Your task to perform on an android device: toggle sleep mode Image 0: 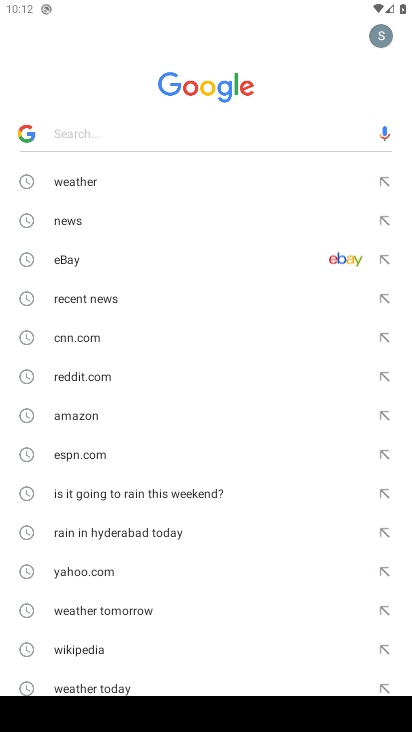
Step 0: press home button
Your task to perform on an android device: toggle sleep mode Image 1: 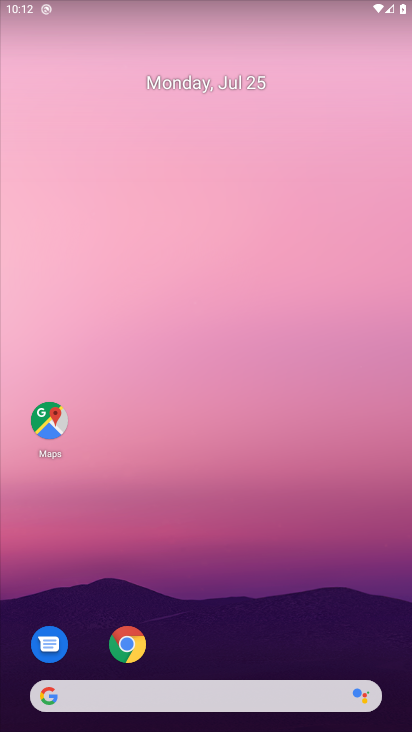
Step 1: drag from (319, 622) to (301, 84)
Your task to perform on an android device: toggle sleep mode Image 2: 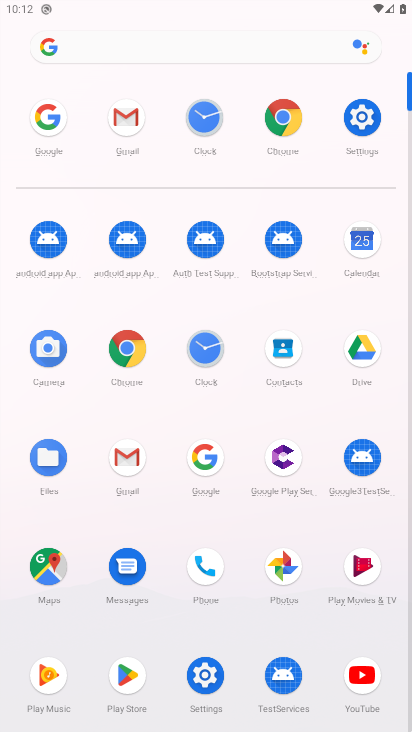
Step 2: click (206, 673)
Your task to perform on an android device: toggle sleep mode Image 3: 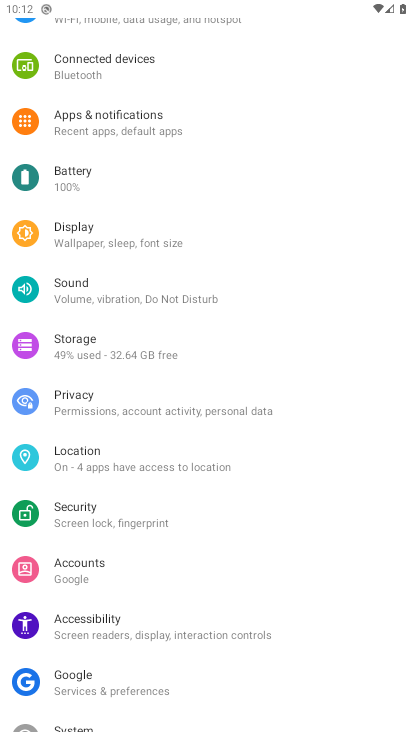
Step 3: click (99, 242)
Your task to perform on an android device: toggle sleep mode Image 4: 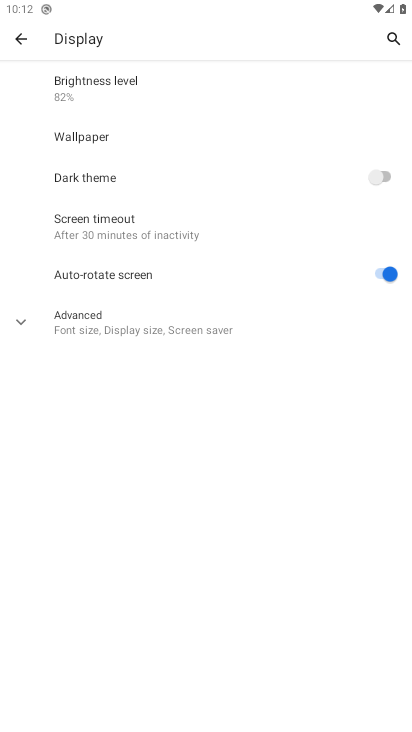
Step 4: click (111, 221)
Your task to perform on an android device: toggle sleep mode Image 5: 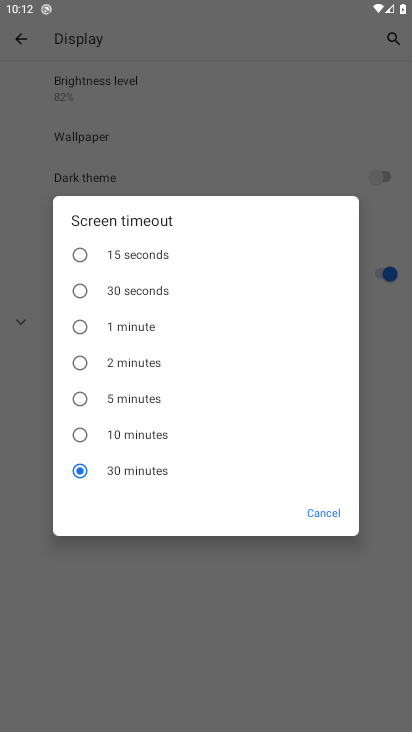
Step 5: click (126, 393)
Your task to perform on an android device: toggle sleep mode Image 6: 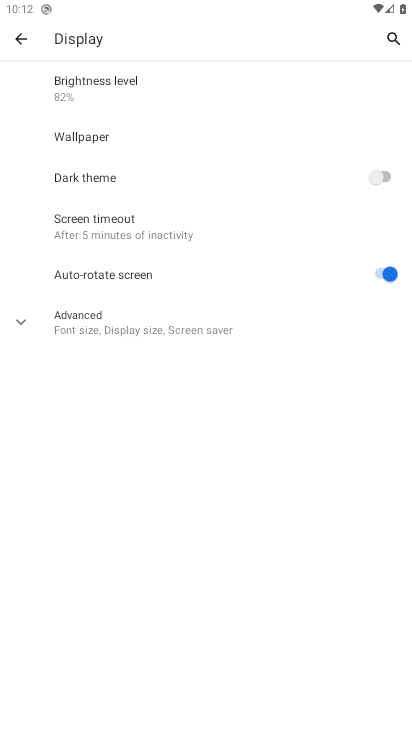
Step 6: task complete